Your task to perform on an android device: install app "Upside-Cash back on gas & food" Image 0: 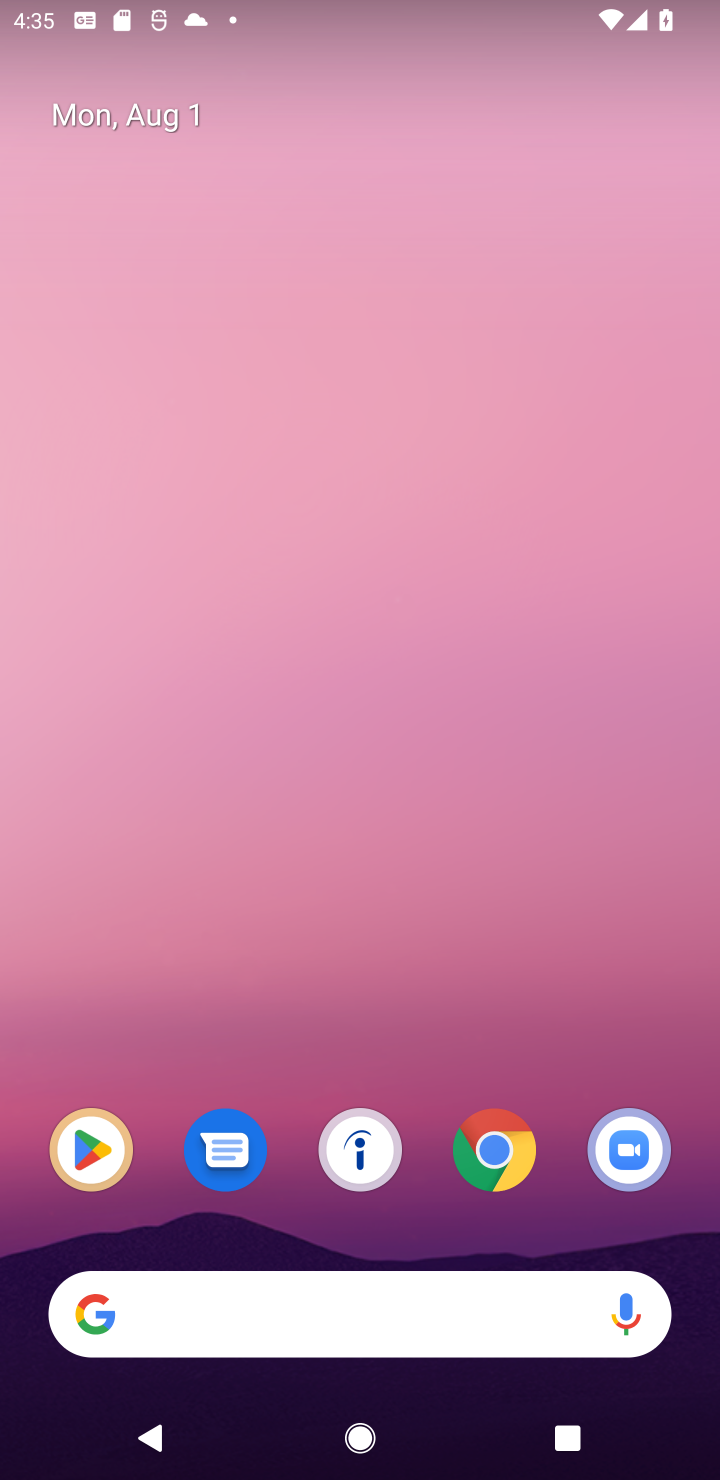
Step 0: click (90, 1123)
Your task to perform on an android device: install app "Upside-Cash back on gas & food" Image 1: 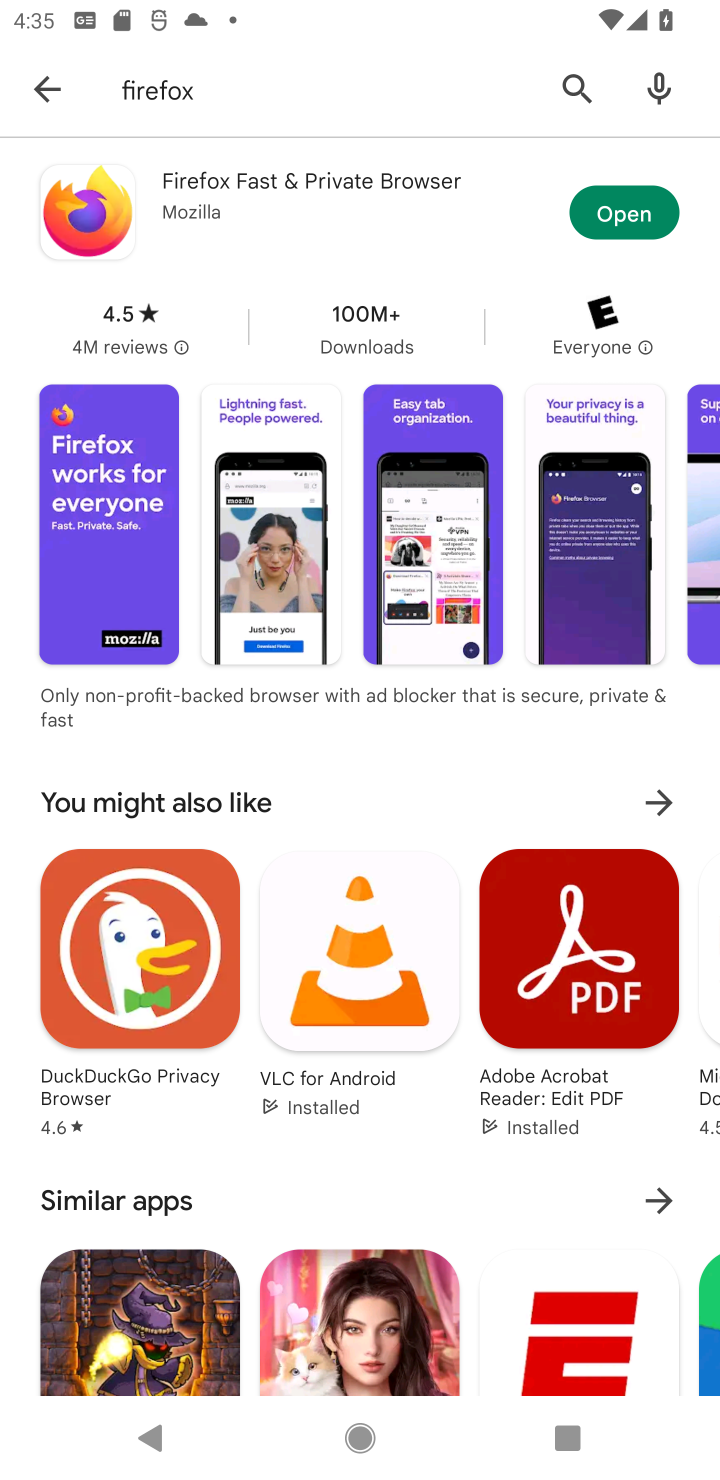
Step 1: click (569, 72)
Your task to perform on an android device: install app "Upside-Cash back on gas & food" Image 2: 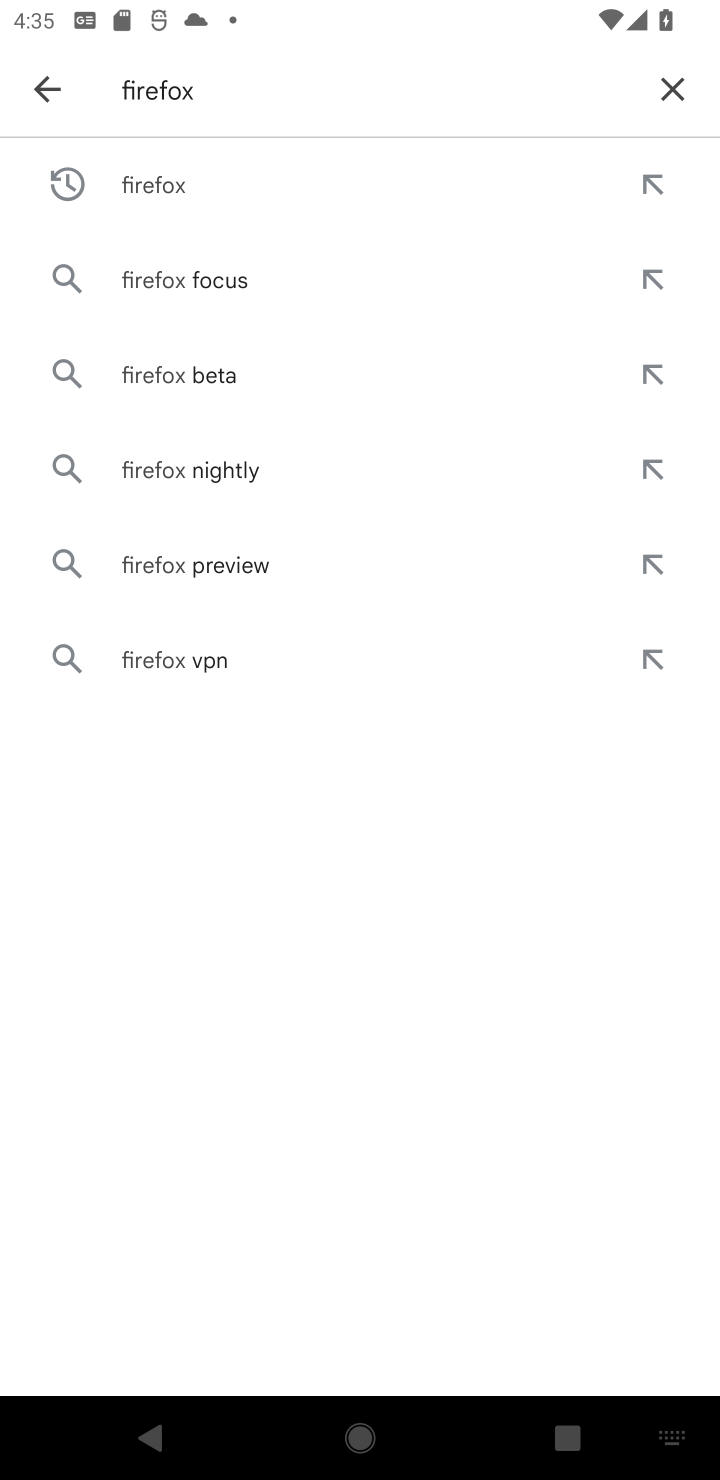
Step 2: click (666, 86)
Your task to perform on an android device: install app "Upside-Cash back on gas & food" Image 3: 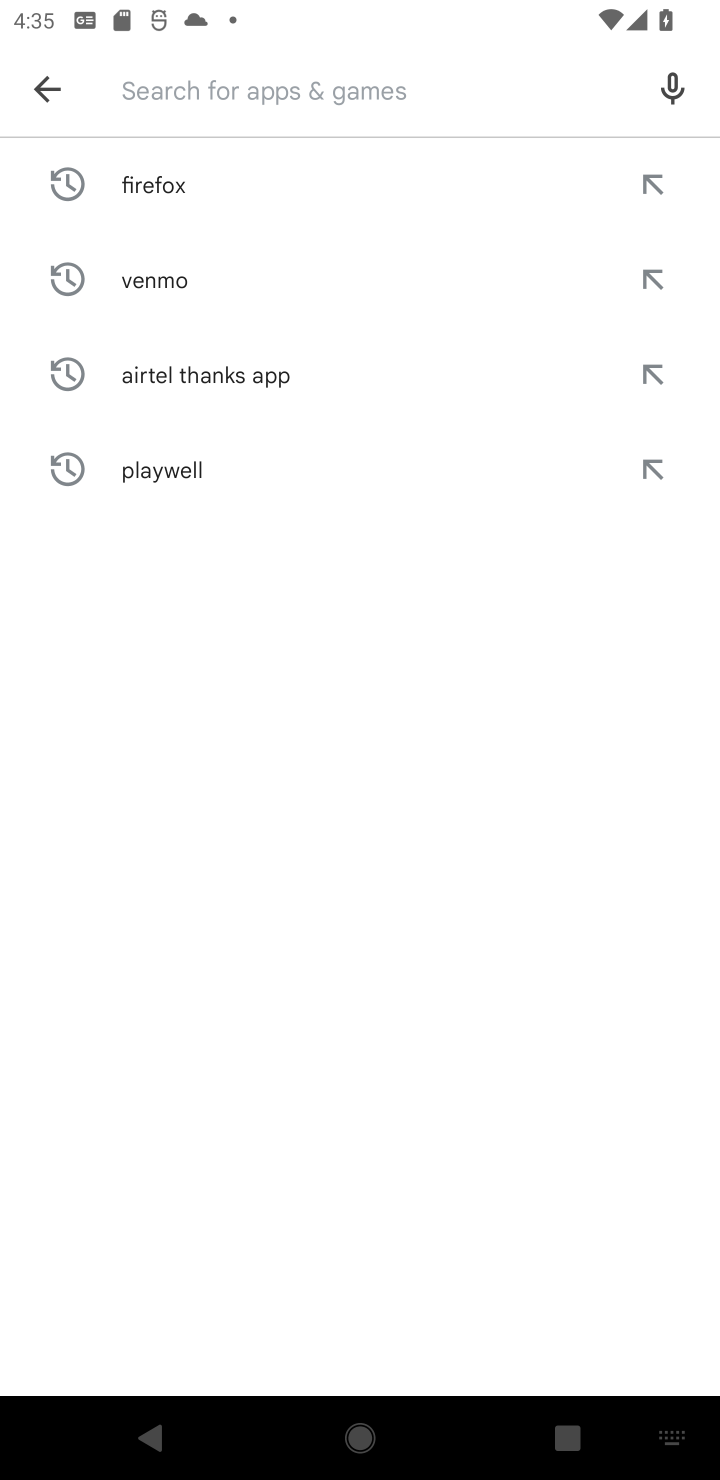
Step 3: type "upside cash"
Your task to perform on an android device: install app "Upside-Cash back on gas & food" Image 4: 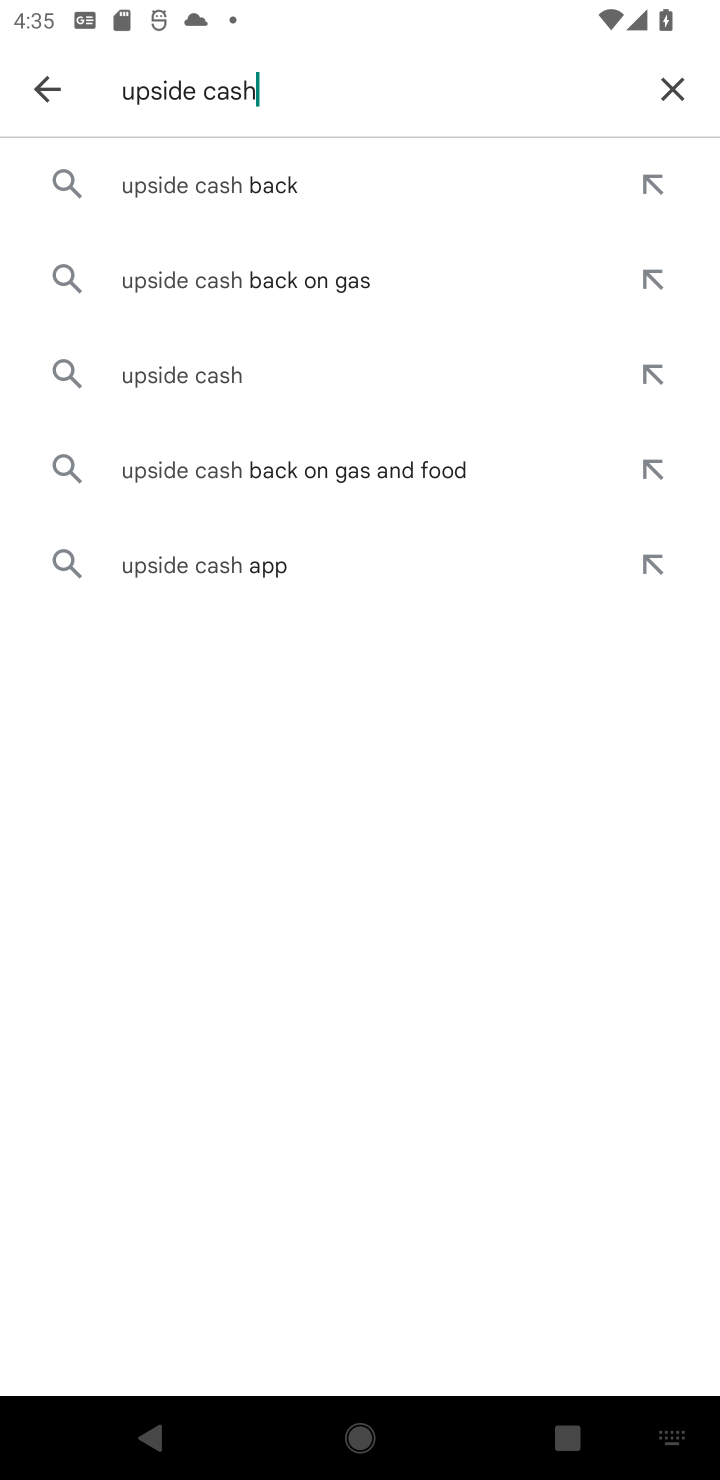
Step 4: click (301, 190)
Your task to perform on an android device: install app "Upside-Cash back on gas & food" Image 5: 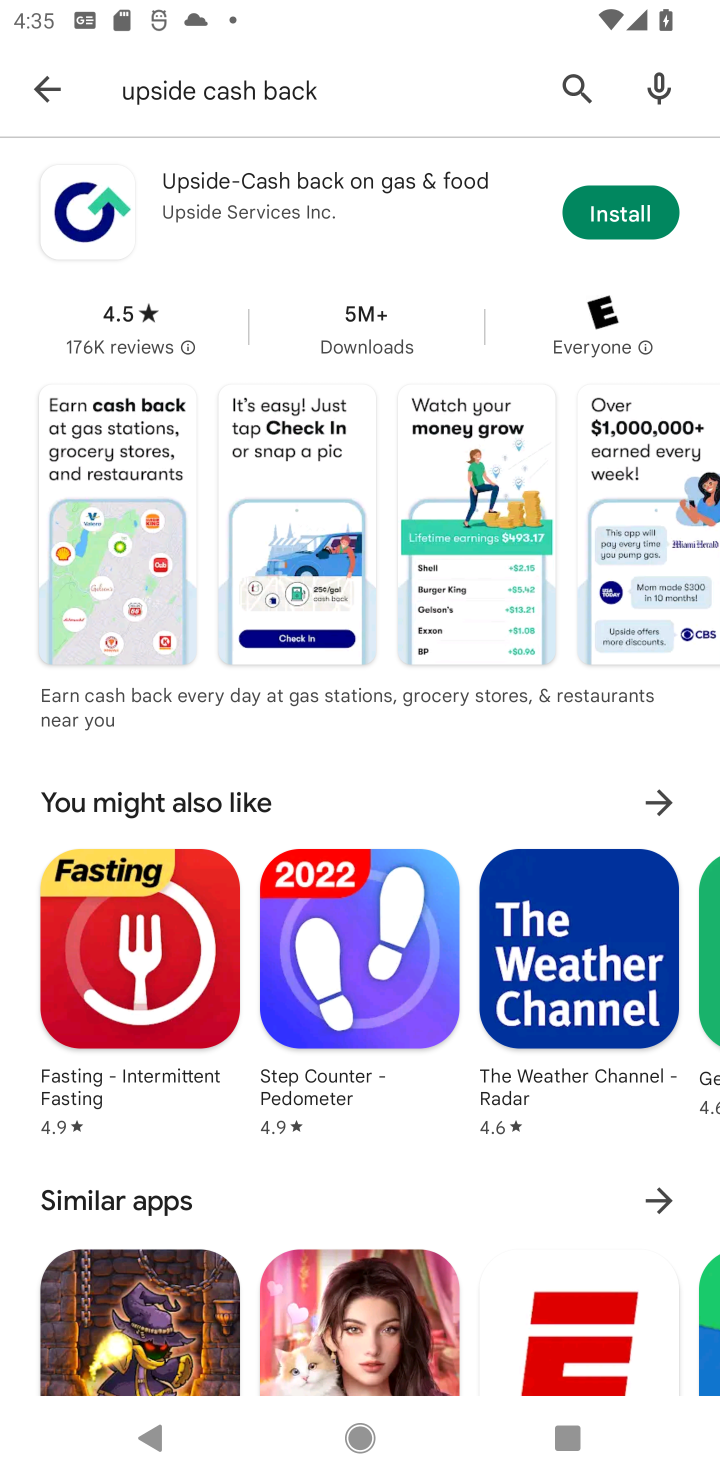
Step 5: click (592, 213)
Your task to perform on an android device: install app "Upside-Cash back on gas & food" Image 6: 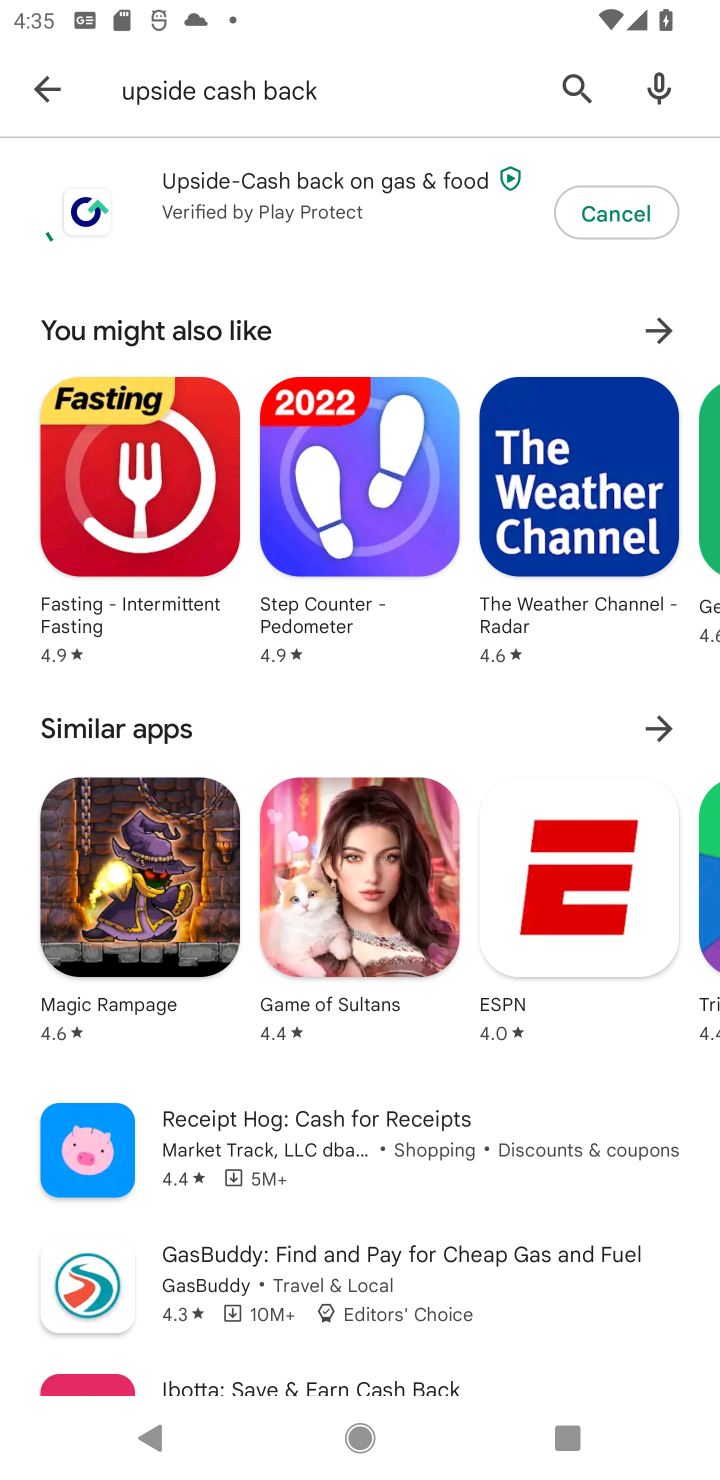
Step 6: task complete